Your task to perform on an android device: set default search engine in the chrome app Image 0: 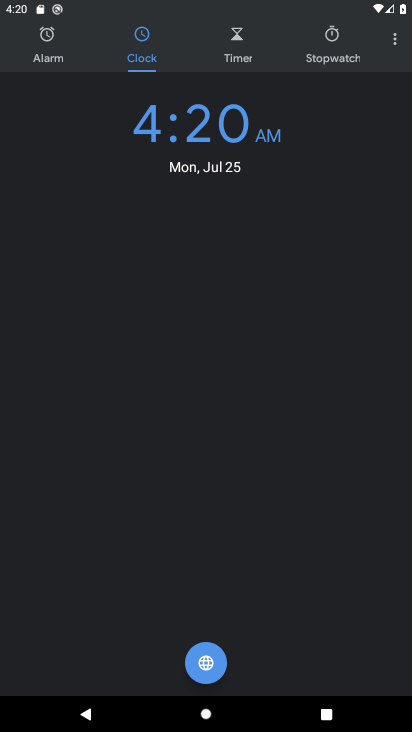
Step 0: press home button
Your task to perform on an android device: set default search engine in the chrome app Image 1: 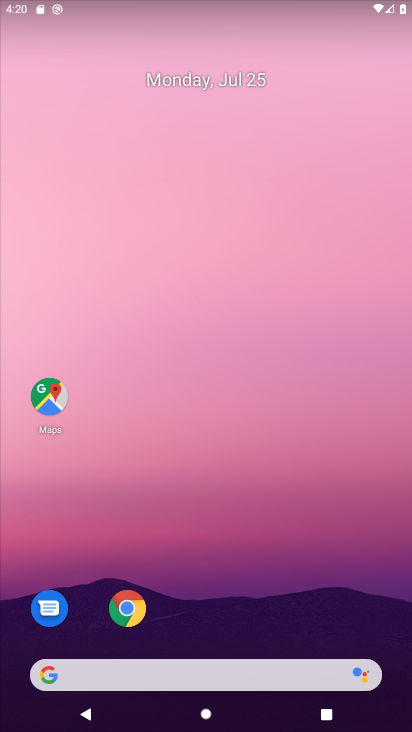
Step 1: drag from (201, 623) to (194, 4)
Your task to perform on an android device: set default search engine in the chrome app Image 2: 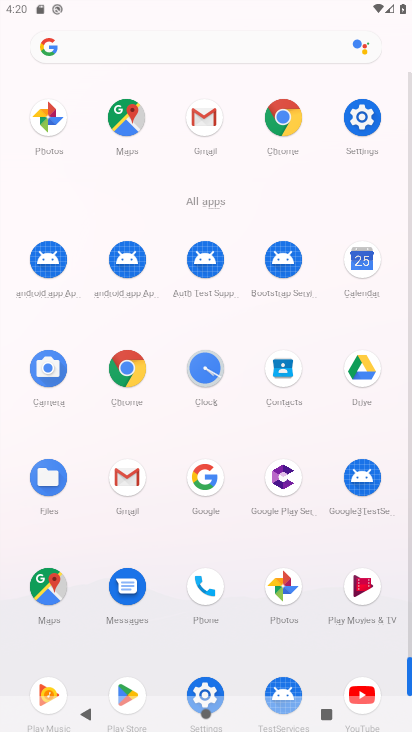
Step 2: click (133, 383)
Your task to perform on an android device: set default search engine in the chrome app Image 3: 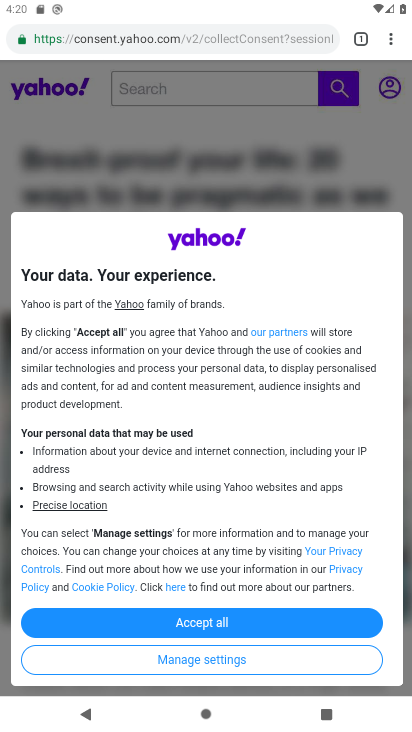
Step 3: click (394, 36)
Your task to perform on an android device: set default search engine in the chrome app Image 4: 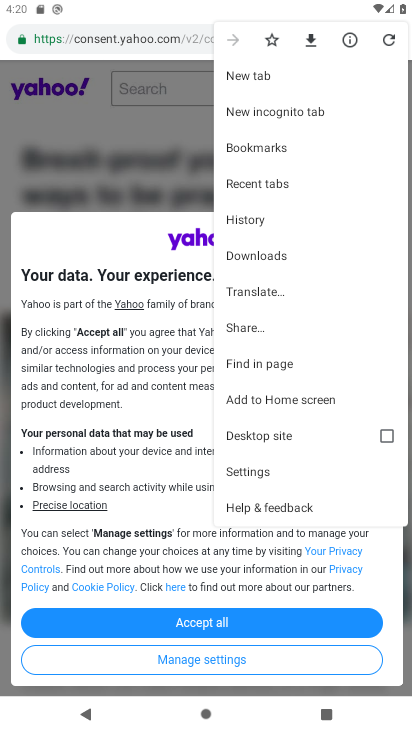
Step 4: click (239, 469)
Your task to perform on an android device: set default search engine in the chrome app Image 5: 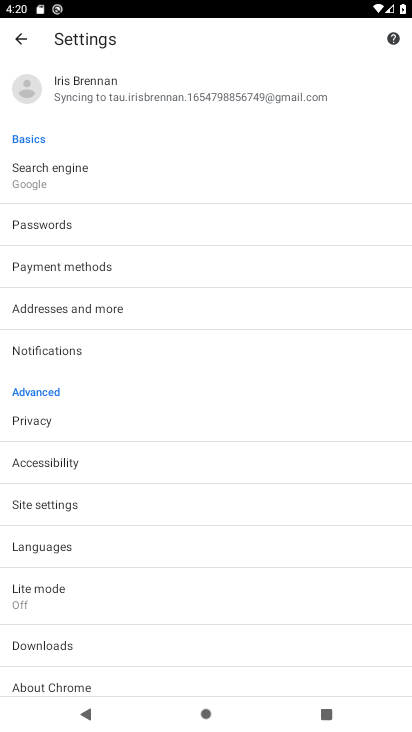
Step 5: click (86, 184)
Your task to perform on an android device: set default search engine in the chrome app Image 6: 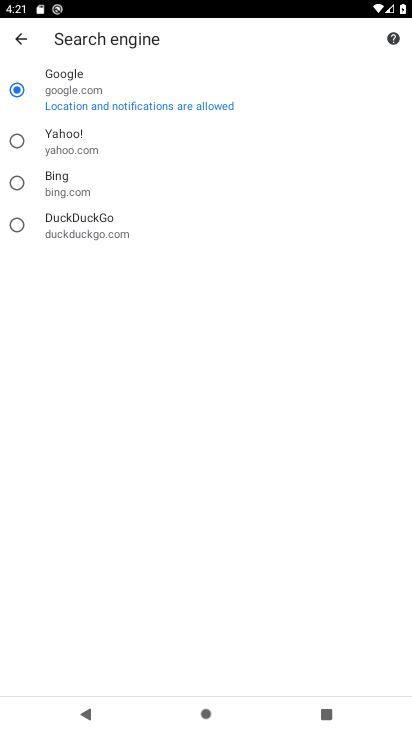
Step 6: task complete